Your task to perform on an android device: Clear all items from cart on walmart.com. Search for macbook pro 15 inch on walmart.com, select the first entry, add it to the cart, then select checkout. Image 0: 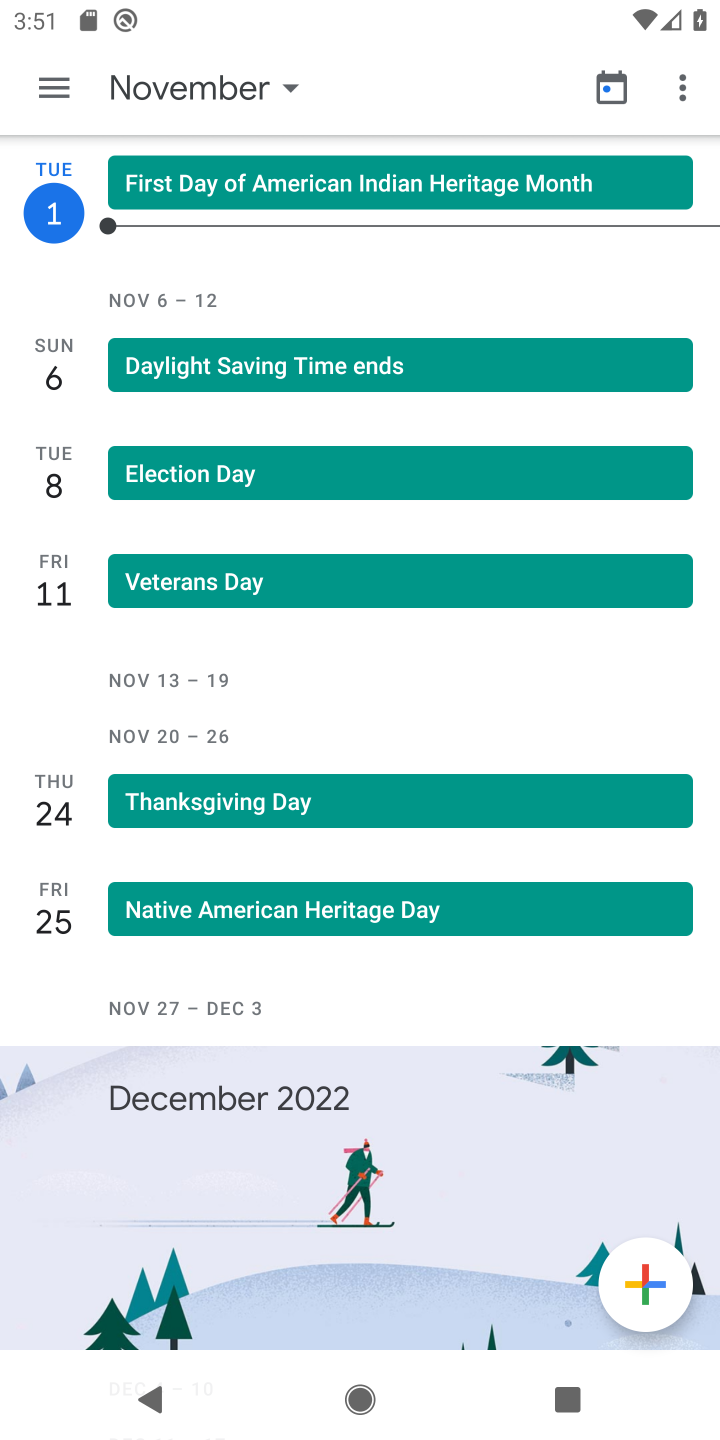
Step 0: press home button
Your task to perform on an android device: Clear all items from cart on walmart.com. Search for macbook pro 15 inch on walmart.com, select the first entry, add it to the cart, then select checkout. Image 1: 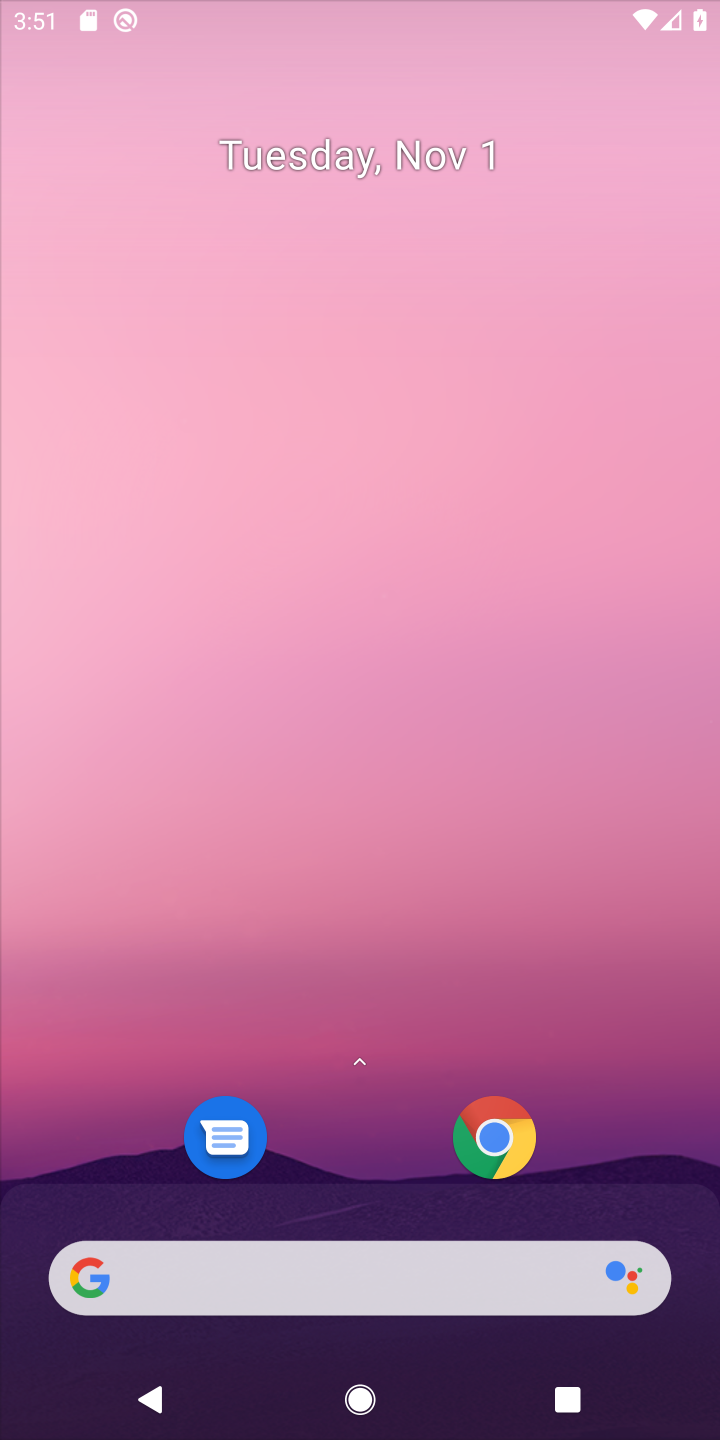
Step 1: click (304, 1325)
Your task to perform on an android device: Clear all items from cart on walmart.com. Search for macbook pro 15 inch on walmart.com, select the first entry, add it to the cart, then select checkout. Image 2: 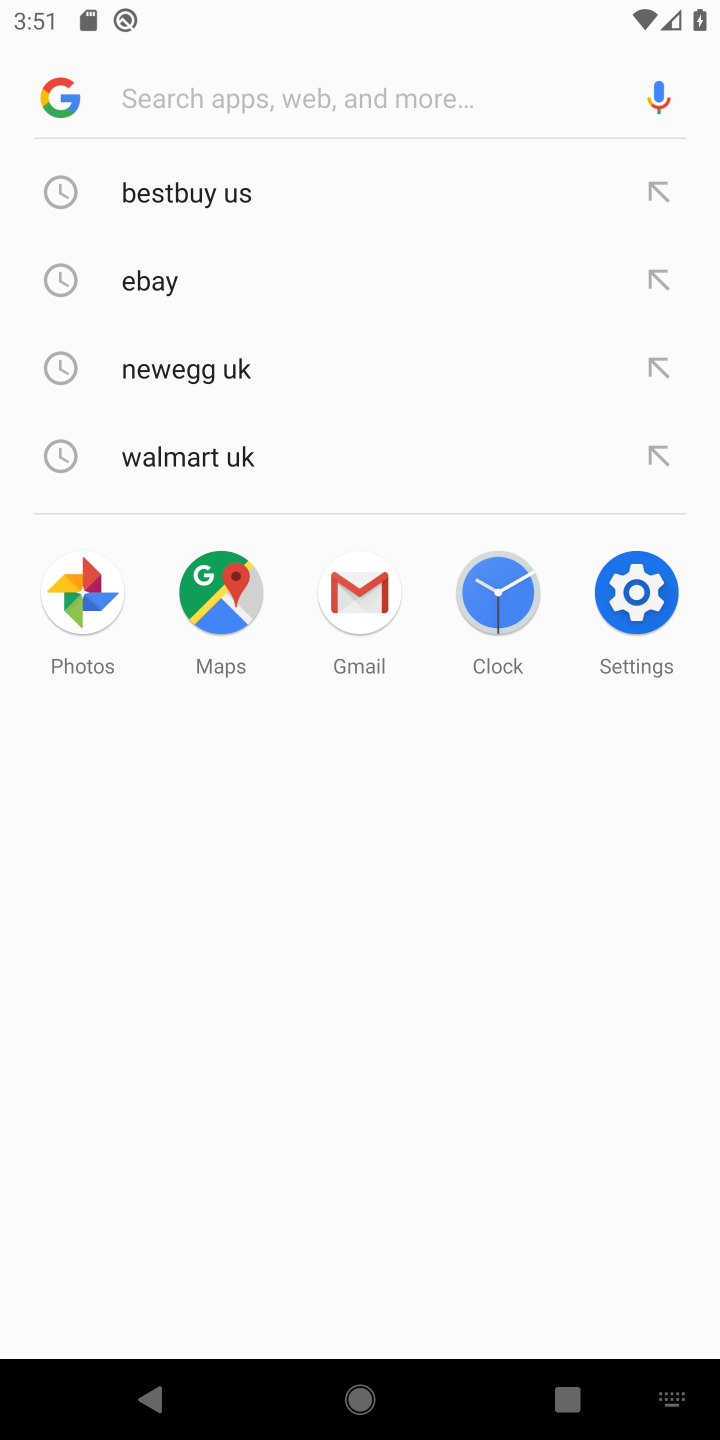
Step 2: type "macbook pro 15"
Your task to perform on an android device: Clear all items from cart on walmart.com. Search for macbook pro 15 inch on walmart.com, select the first entry, add it to the cart, then select checkout. Image 3: 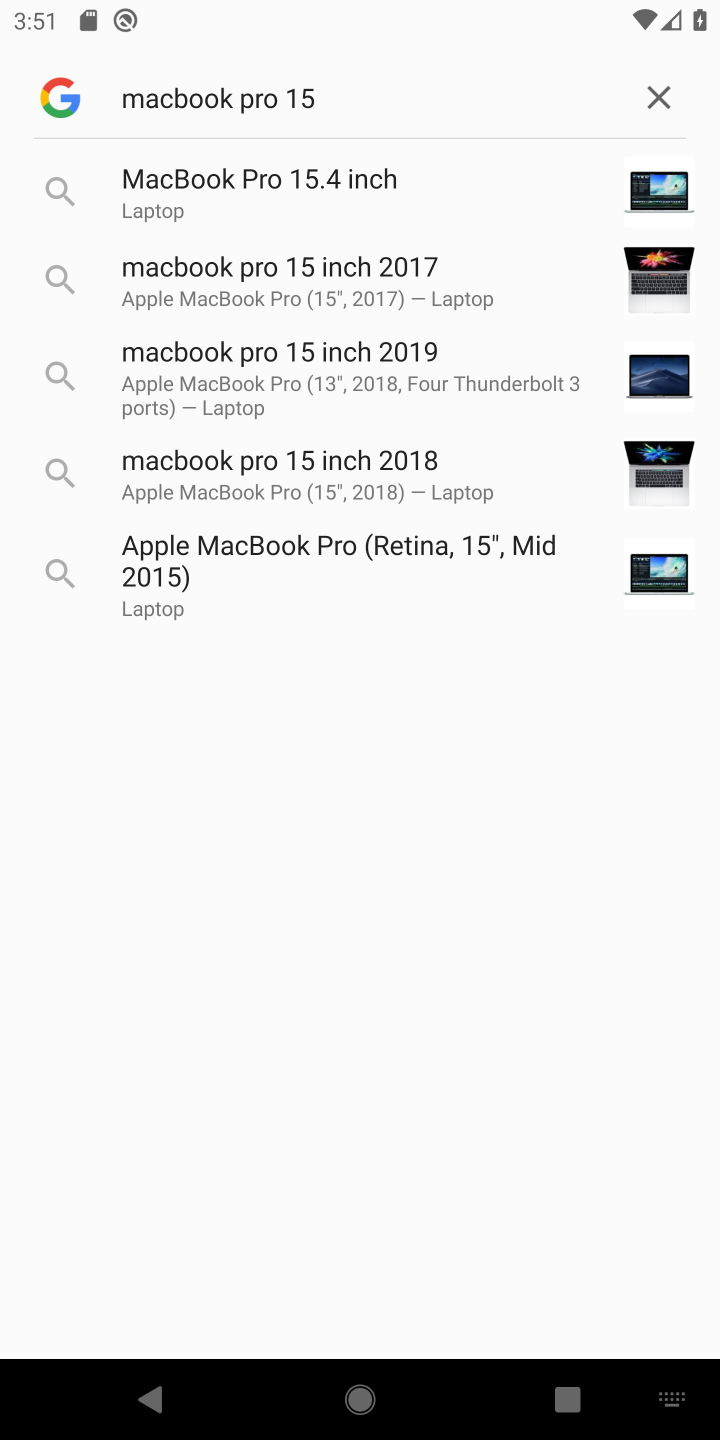
Step 3: click (174, 155)
Your task to perform on an android device: Clear all items from cart on walmart.com. Search for macbook pro 15 inch on walmart.com, select the first entry, add it to the cart, then select checkout. Image 4: 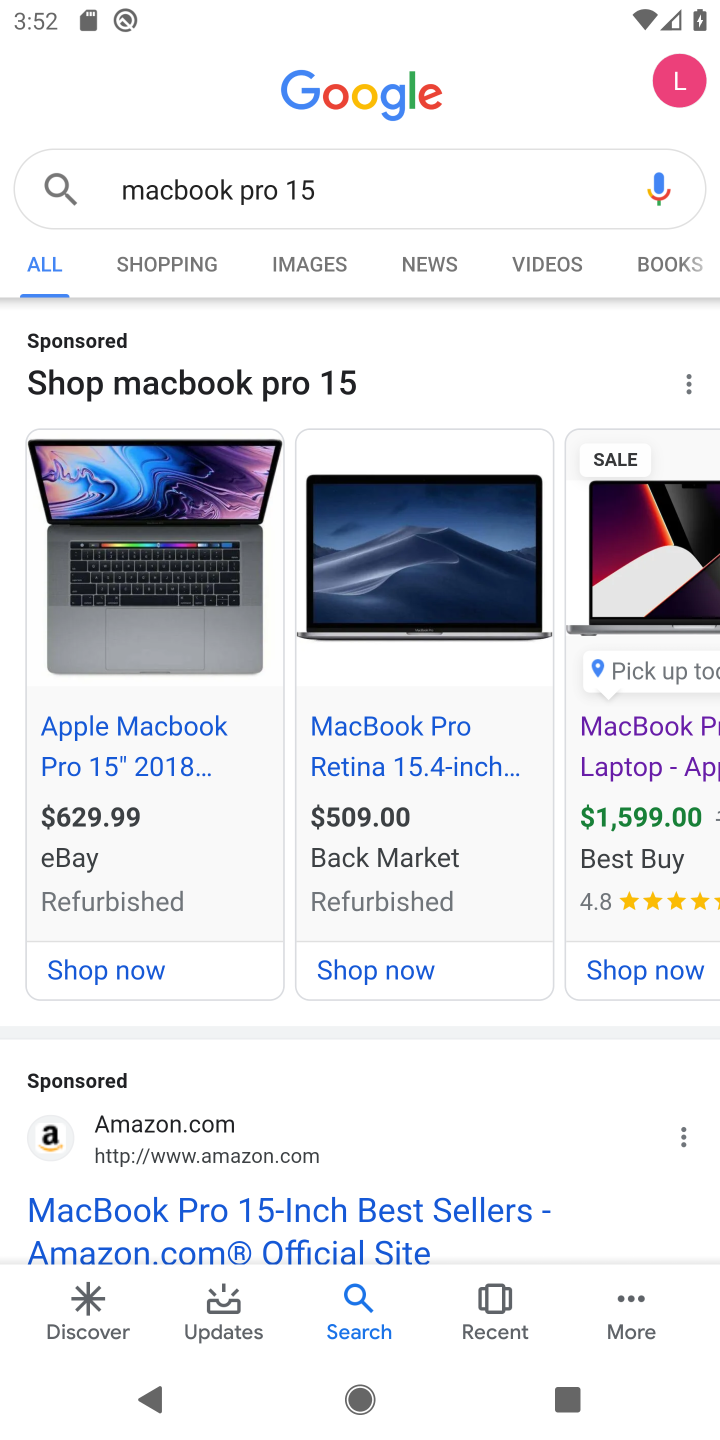
Step 4: task complete